Your task to perform on an android device: Open Chrome and go to settings Image 0: 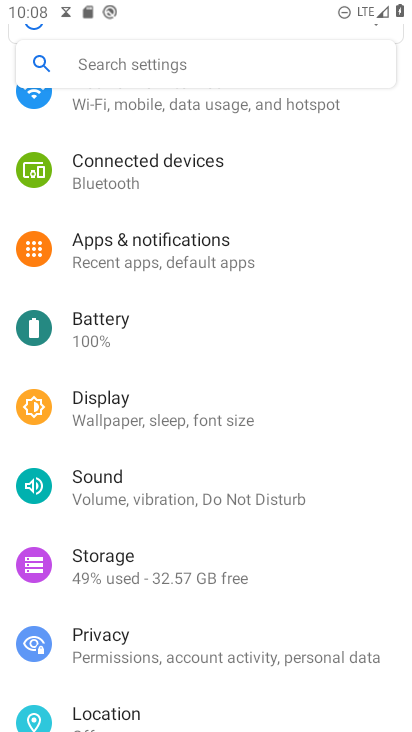
Step 0: press home button
Your task to perform on an android device: Open Chrome and go to settings Image 1: 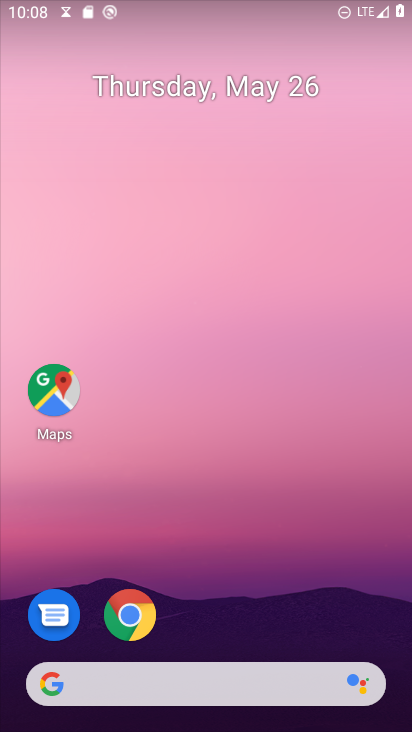
Step 1: click (123, 610)
Your task to perform on an android device: Open Chrome and go to settings Image 2: 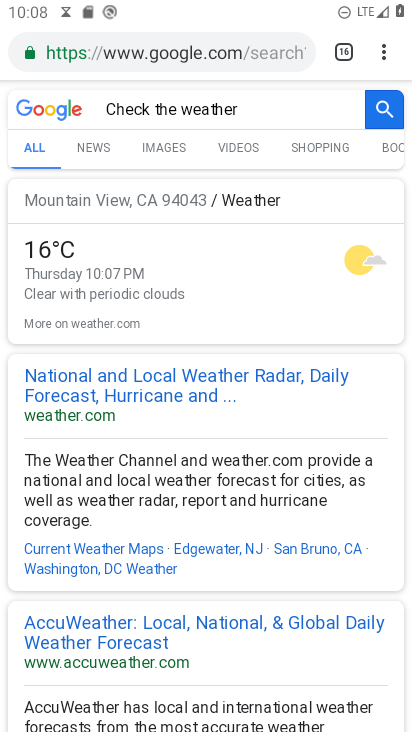
Step 2: click (390, 48)
Your task to perform on an android device: Open Chrome and go to settings Image 3: 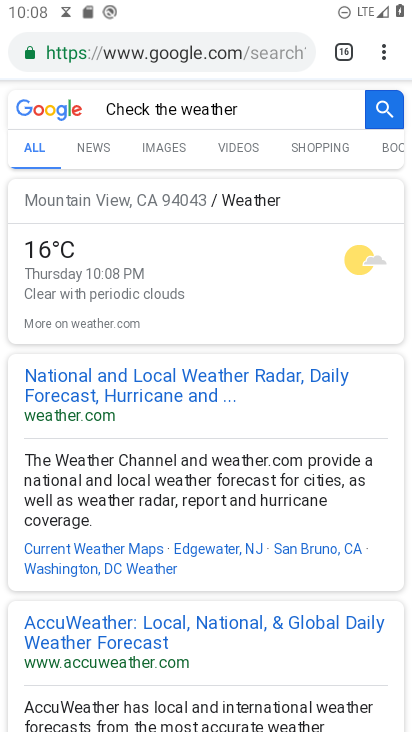
Step 3: click (388, 48)
Your task to perform on an android device: Open Chrome and go to settings Image 4: 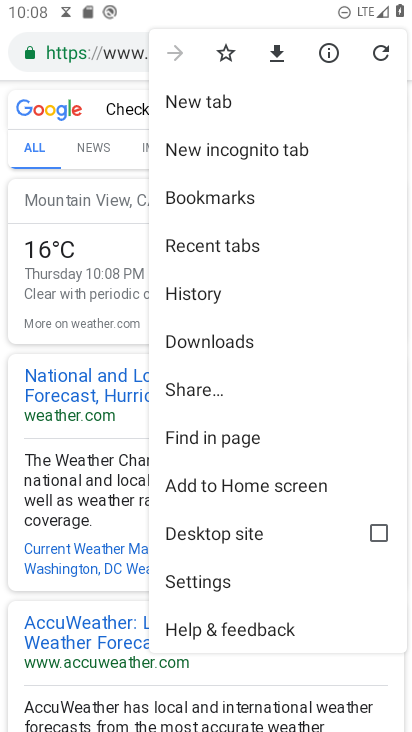
Step 4: click (205, 577)
Your task to perform on an android device: Open Chrome and go to settings Image 5: 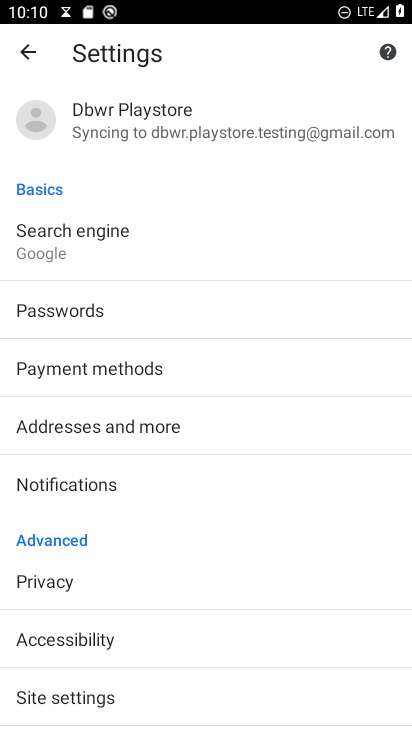
Step 5: task complete